Your task to perform on an android device: Open my contact list Image 0: 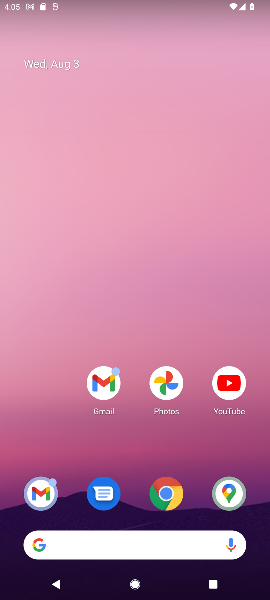
Step 0: drag from (35, 436) to (44, 159)
Your task to perform on an android device: Open my contact list Image 1: 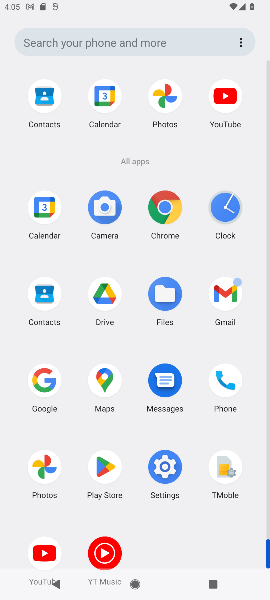
Step 1: click (48, 288)
Your task to perform on an android device: Open my contact list Image 2: 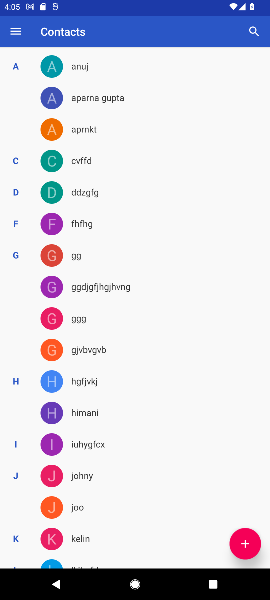
Step 2: task complete